Your task to perform on an android device: toggle sleep mode Image 0: 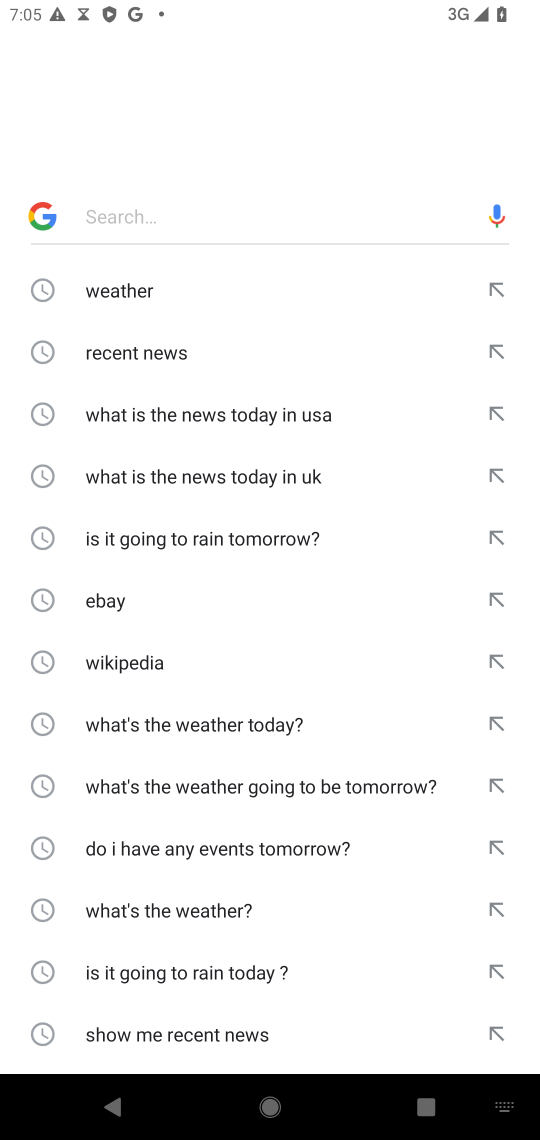
Step 0: press home button
Your task to perform on an android device: toggle sleep mode Image 1: 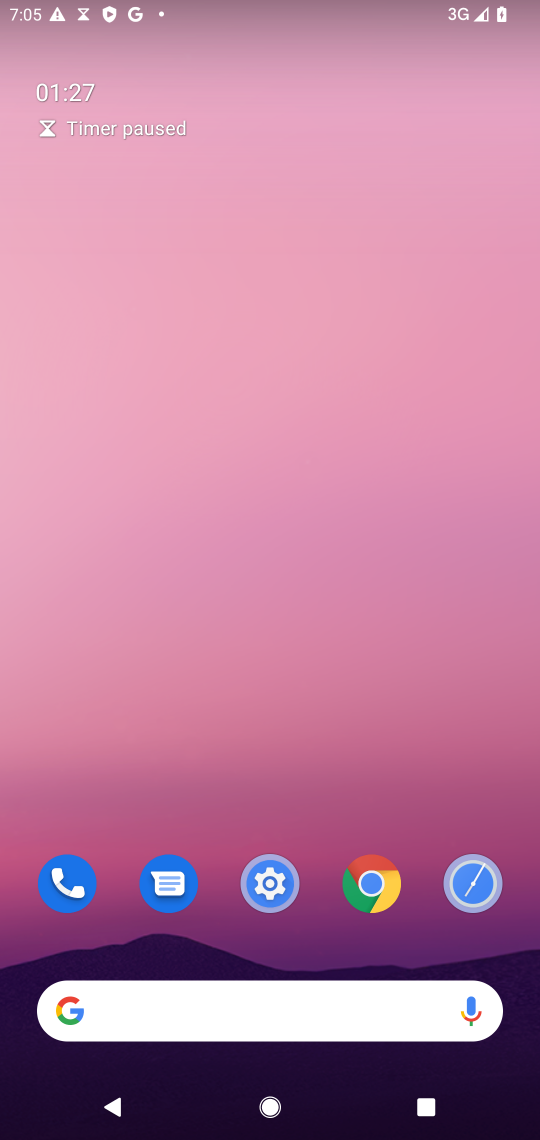
Step 1: click (272, 881)
Your task to perform on an android device: toggle sleep mode Image 2: 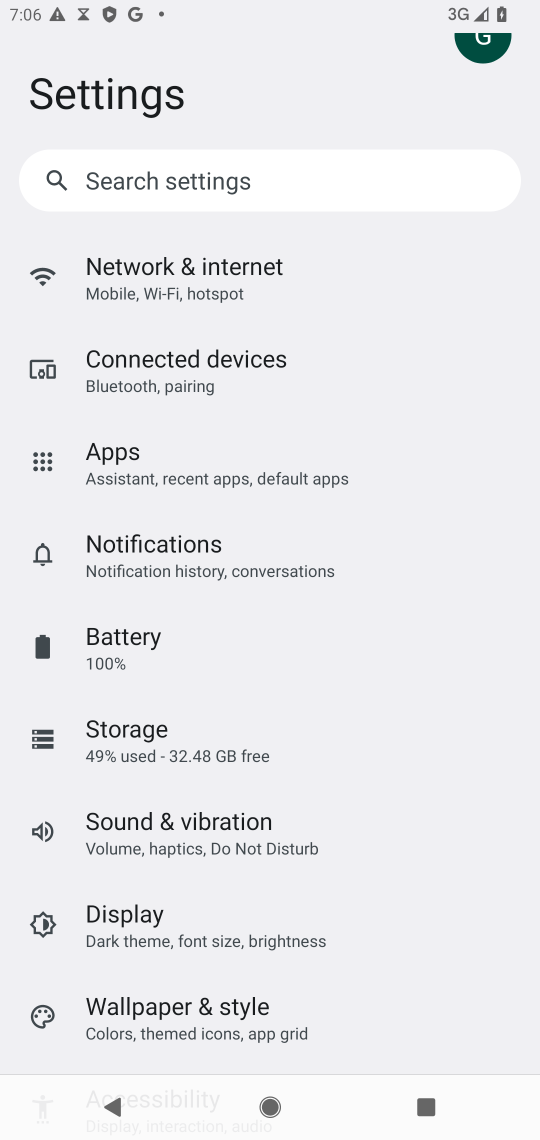
Step 2: click (129, 929)
Your task to perform on an android device: toggle sleep mode Image 3: 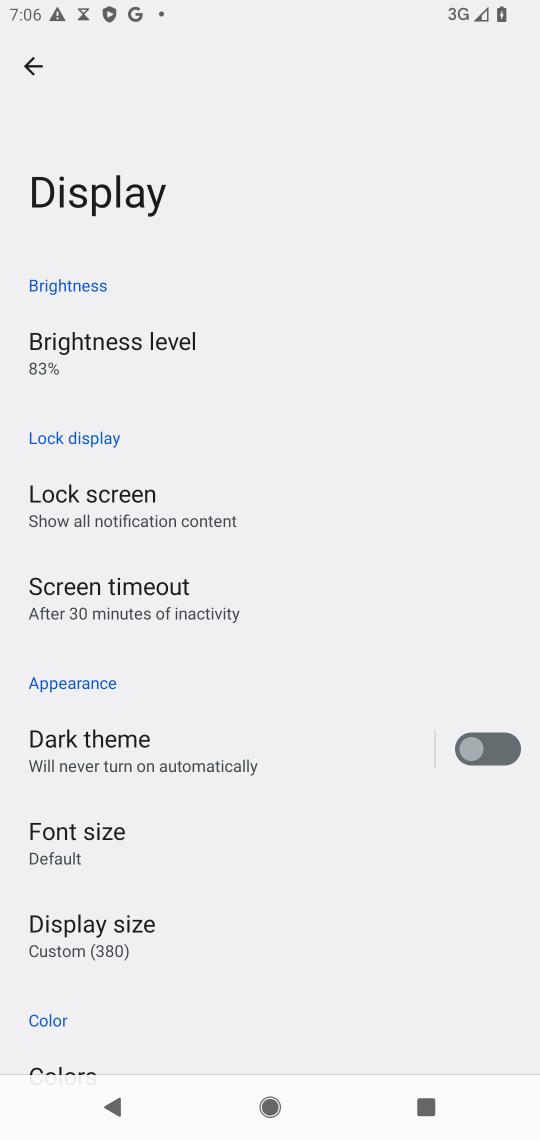
Step 3: drag from (61, 991) to (141, 805)
Your task to perform on an android device: toggle sleep mode Image 4: 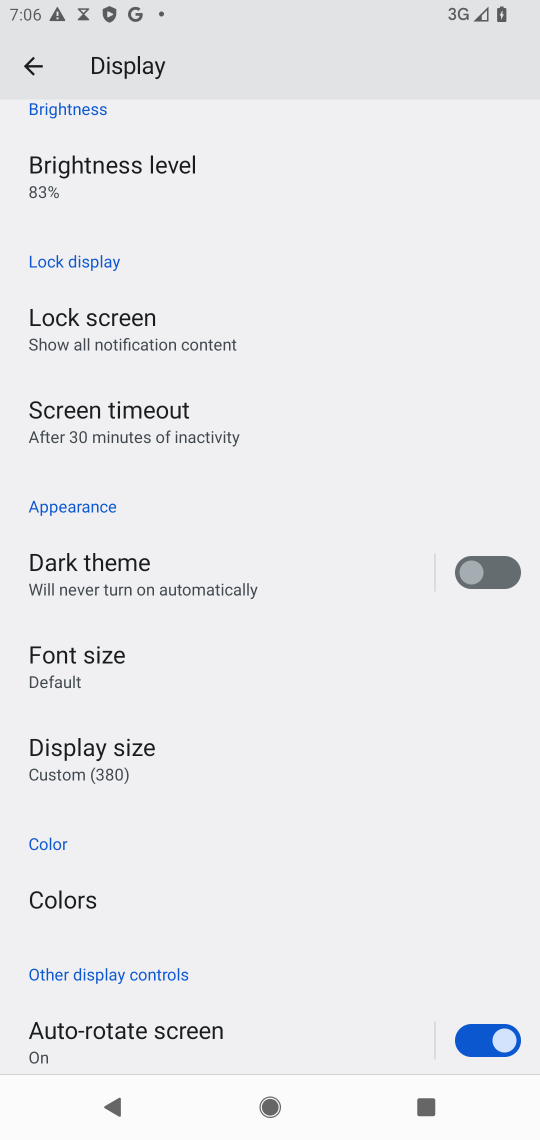
Step 4: drag from (173, 854) to (220, 708)
Your task to perform on an android device: toggle sleep mode Image 5: 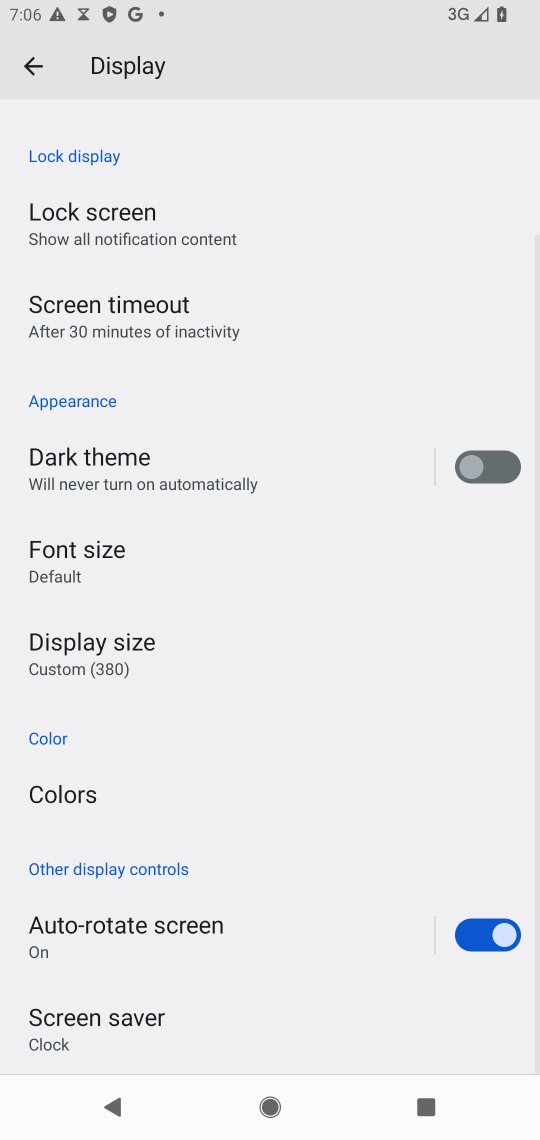
Step 5: drag from (157, 992) to (278, 847)
Your task to perform on an android device: toggle sleep mode Image 6: 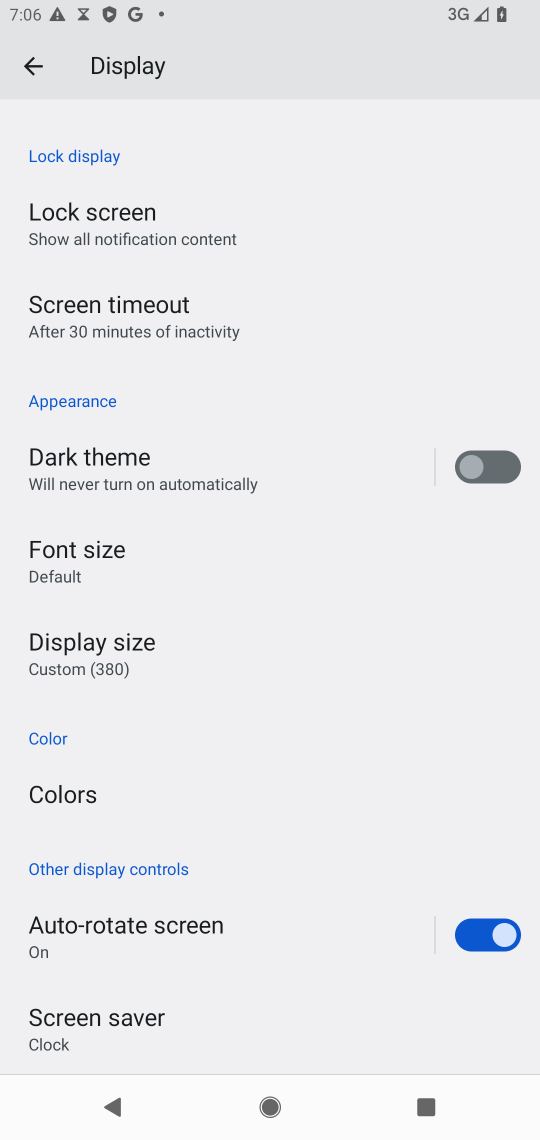
Step 6: drag from (205, 546) to (286, 879)
Your task to perform on an android device: toggle sleep mode Image 7: 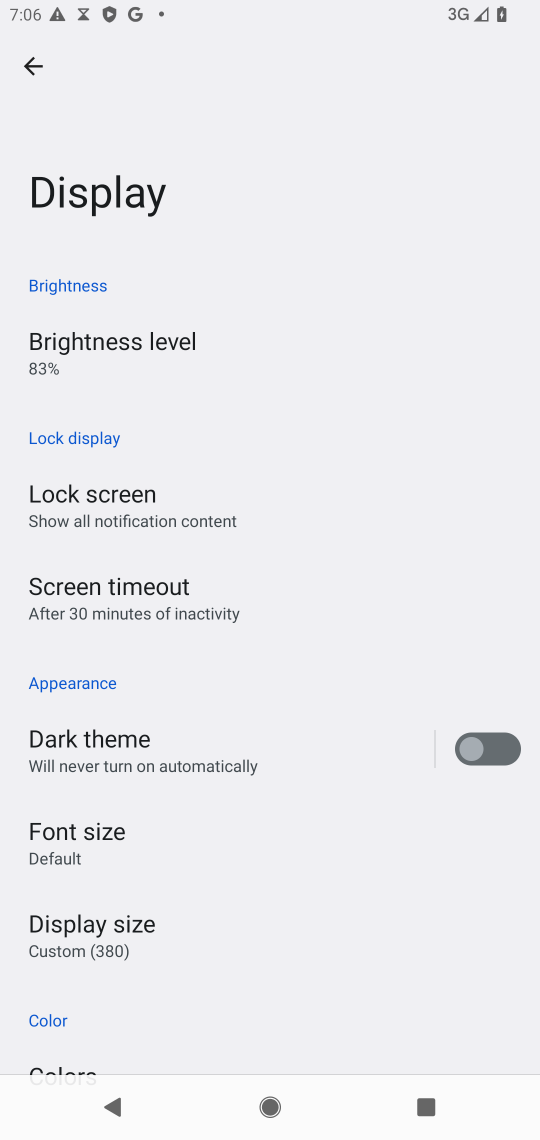
Step 7: click (203, 618)
Your task to perform on an android device: toggle sleep mode Image 8: 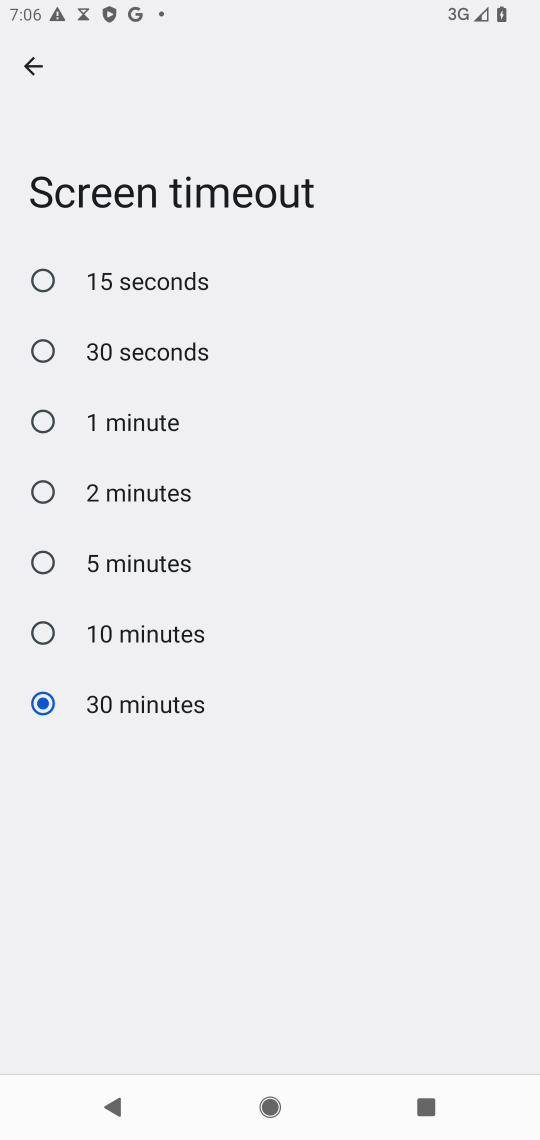
Step 8: task complete